Your task to perform on an android device: Open accessibility settings Image 0: 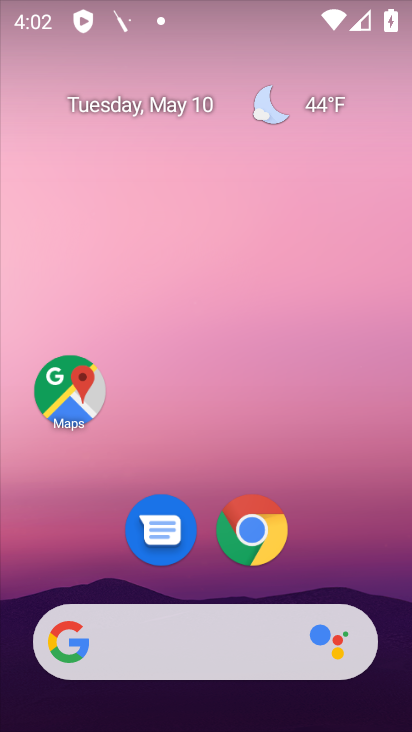
Step 0: drag from (212, 544) to (271, 41)
Your task to perform on an android device: Open accessibility settings Image 1: 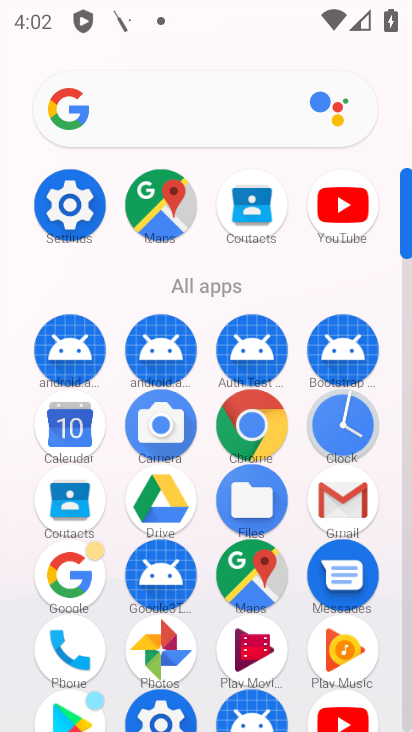
Step 1: click (86, 198)
Your task to perform on an android device: Open accessibility settings Image 2: 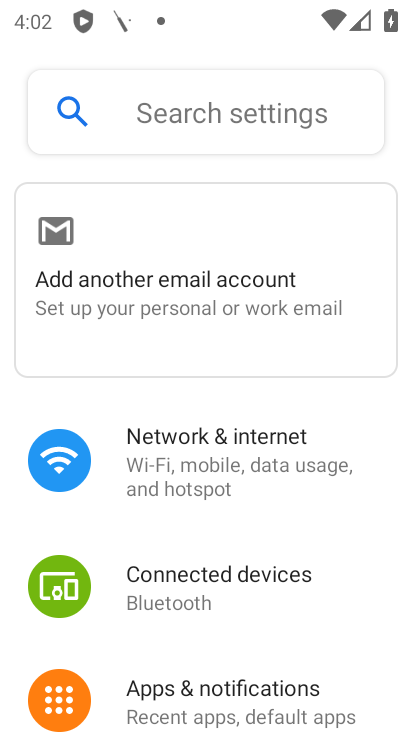
Step 2: drag from (182, 642) to (284, 173)
Your task to perform on an android device: Open accessibility settings Image 3: 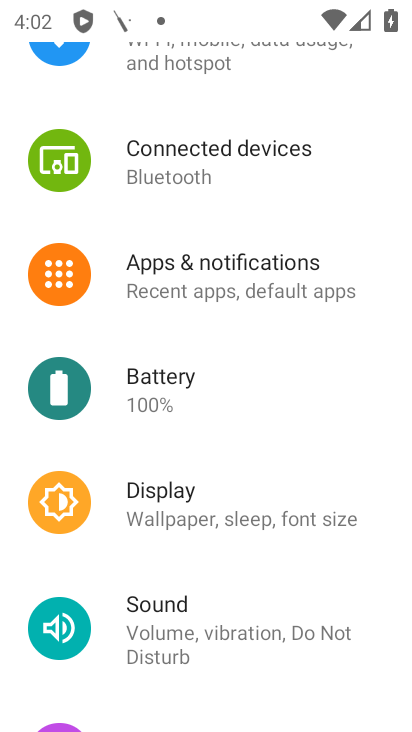
Step 3: drag from (226, 640) to (268, 158)
Your task to perform on an android device: Open accessibility settings Image 4: 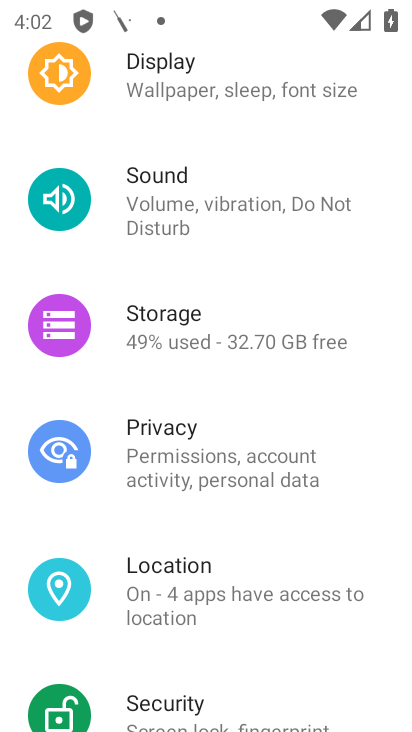
Step 4: drag from (221, 655) to (320, 158)
Your task to perform on an android device: Open accessibility settings Image 5: 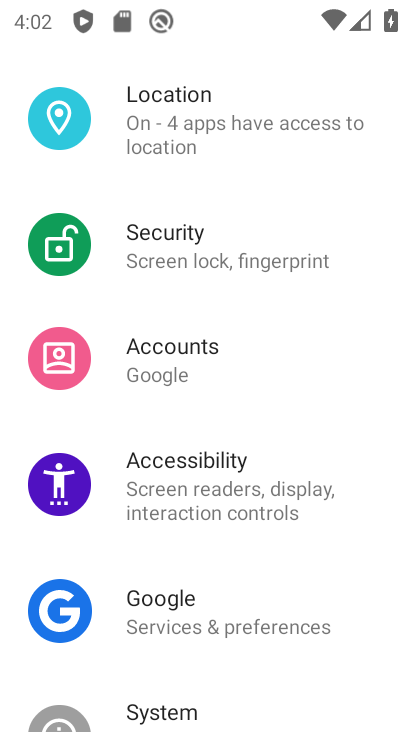
Step 5: click (223, 479)
Your task to perform on an android device: Open accessibility settings Image 6: 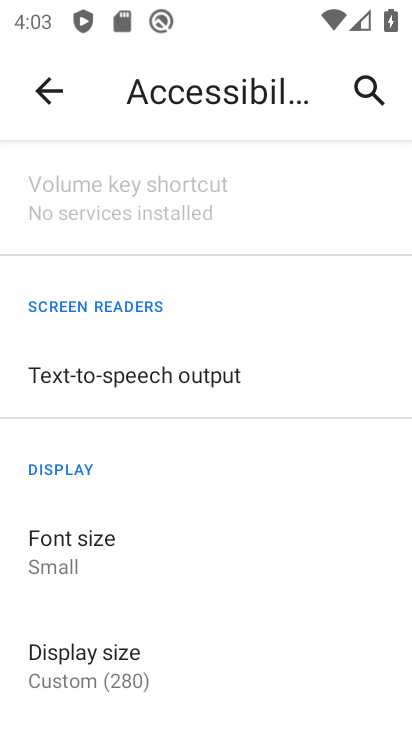
Step 6: task complete